Your task to perform on an android device: check google app version Image 0: 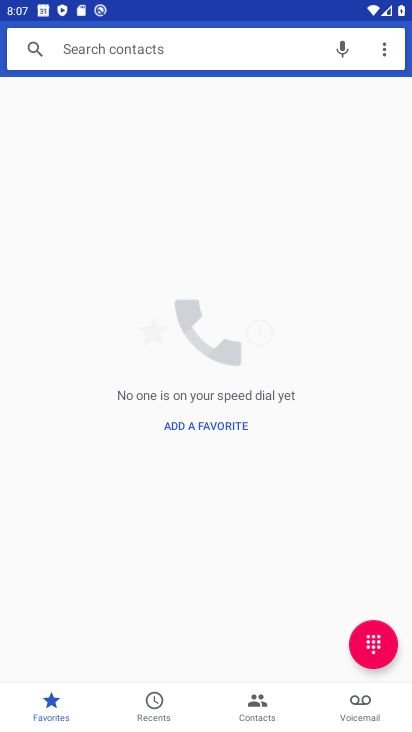
Step 0: press home button
Your task to perform on an android device: check google app version Image 1: 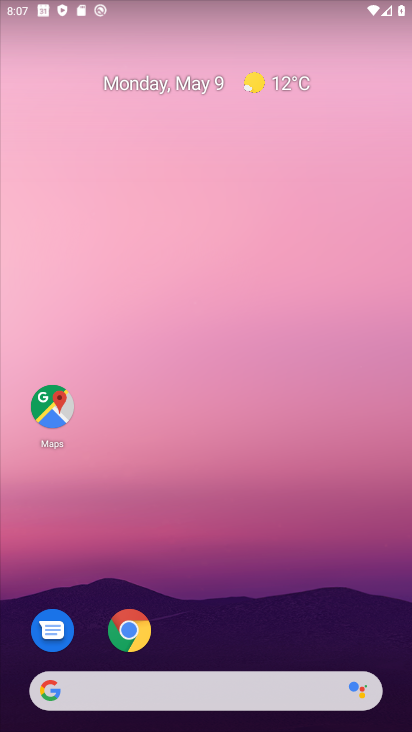
Step 1: drag from (166, 673) to (163, 310)
Your task to perform on an android device: check google app version Image 2: 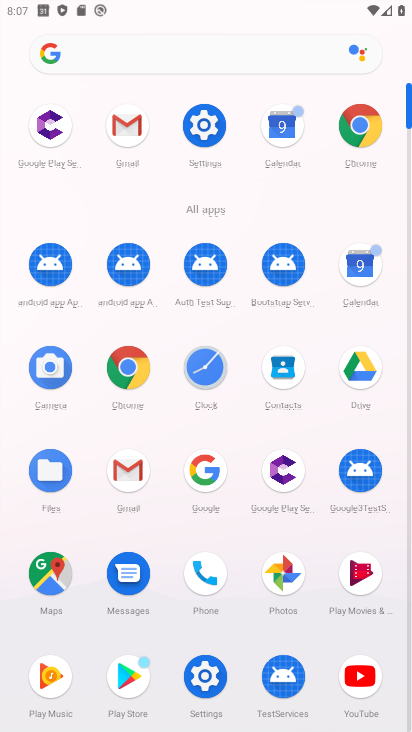
Step 2: click (208, 480)
Your task to perform on an android device: check google app version Image 3: 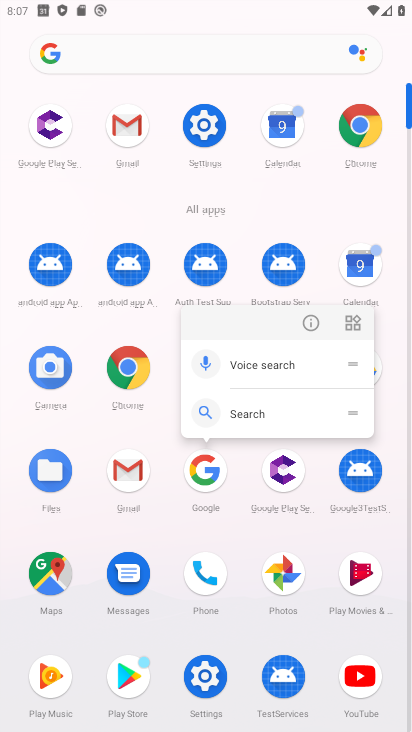
Step 3: click (310, 324)
Your task to perform on an android device: check google app version Image 4: 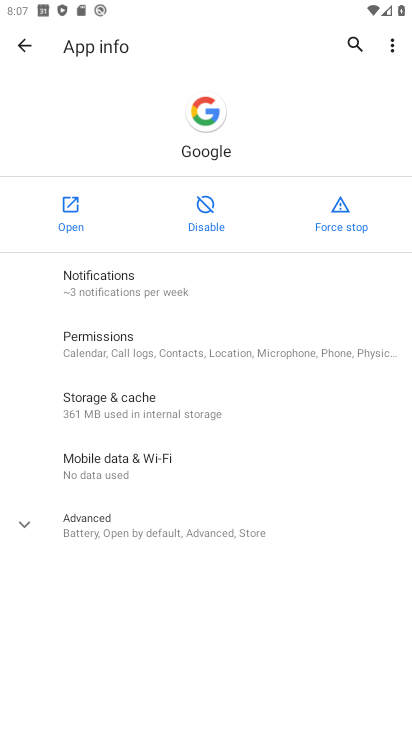
Step 4: click (91, 518)
Your task to perform on an android device: check google app version Image 5: 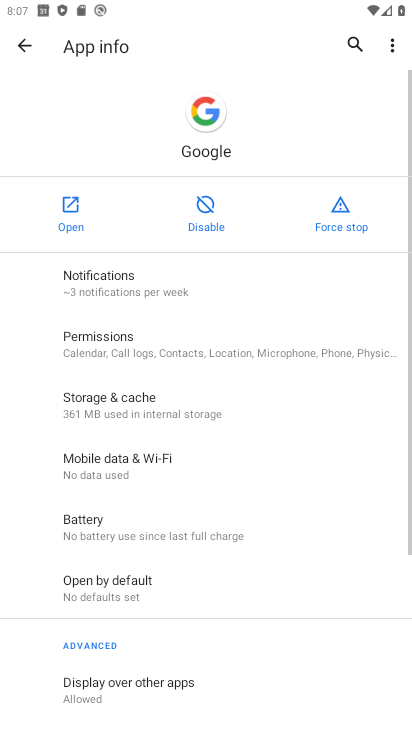
Step 5: task complete